Your task to perform on an android device: Do I have any events today? Image 0: 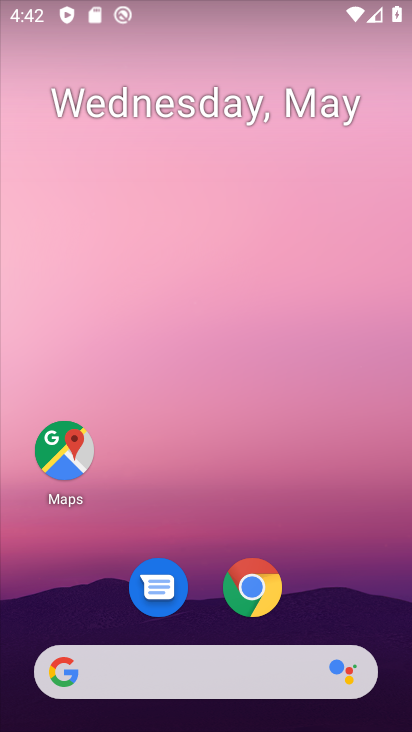
Step 0: drag from (280, 691) to (50, 50)
Your task to perform on an android device: Do I have any events today? Image 1: 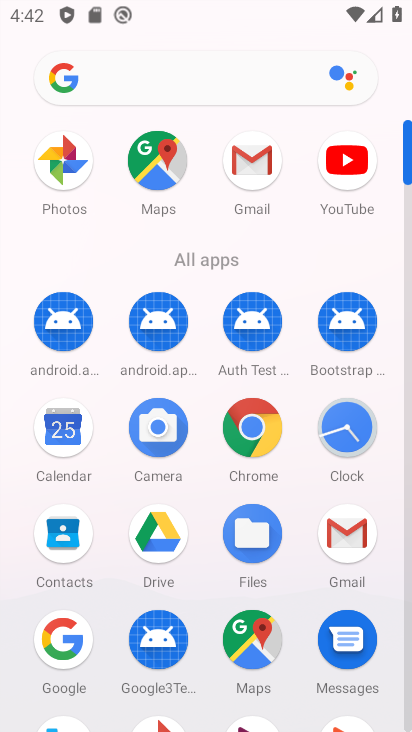
Step 1: click (63, 420)
Your task to perform on an android device: Do I have any events today? Image 2: 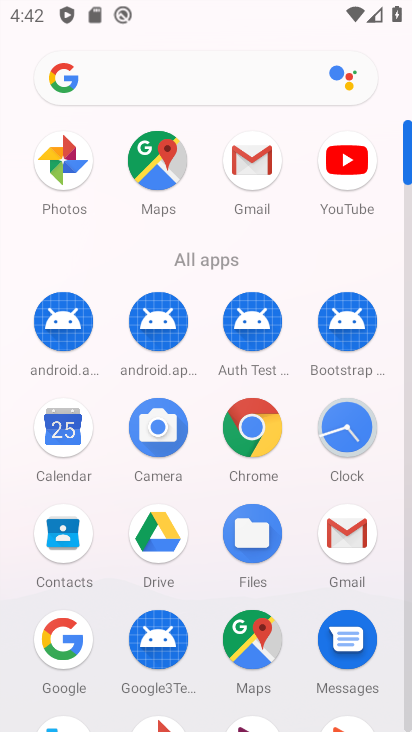
Step 2: click (64, 421)
Your task to perform on an android device: Do I have any events today? Image 3: 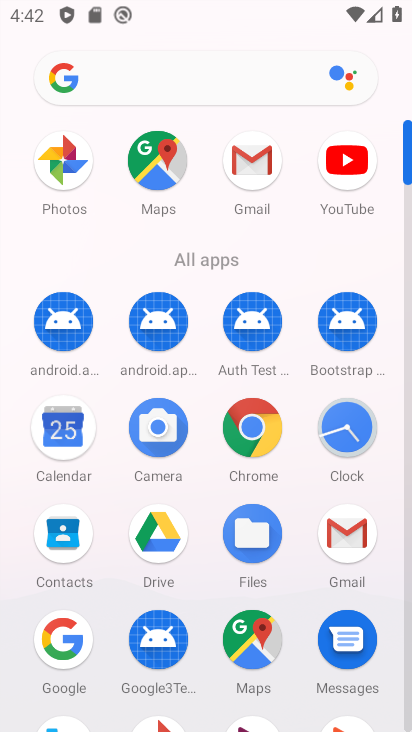
Step 3: click (64, 422)
Your task to perform on an android device: Do I have any events today? Image 4: 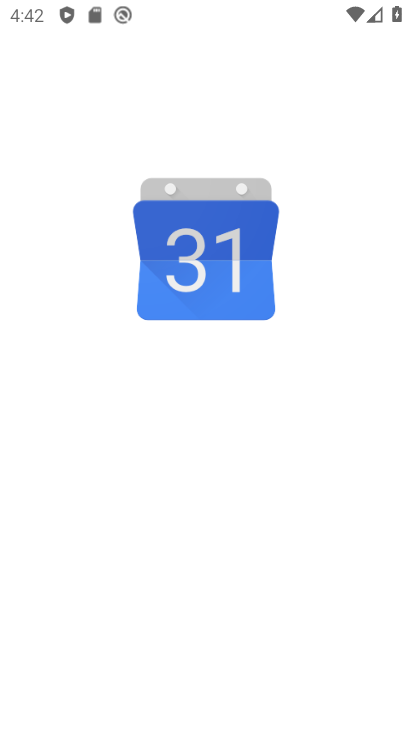
Step 4: click (64, 422)
Your task to perform on an android device: Do I have any events today? Image 5: 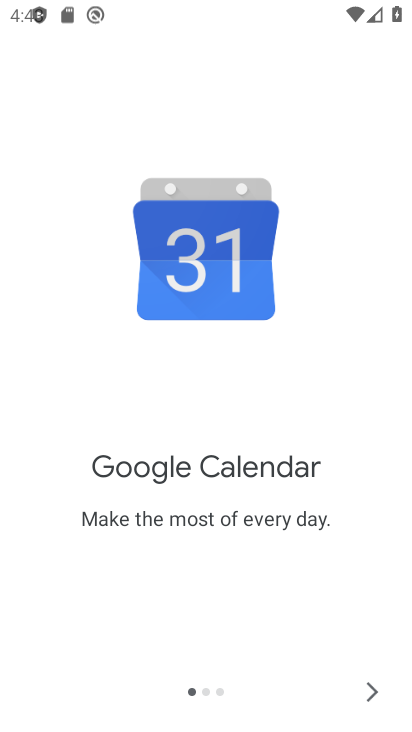
Step 5: click (377, 684)
Your task to perform on an android device: Do I have any events today? Image 6: 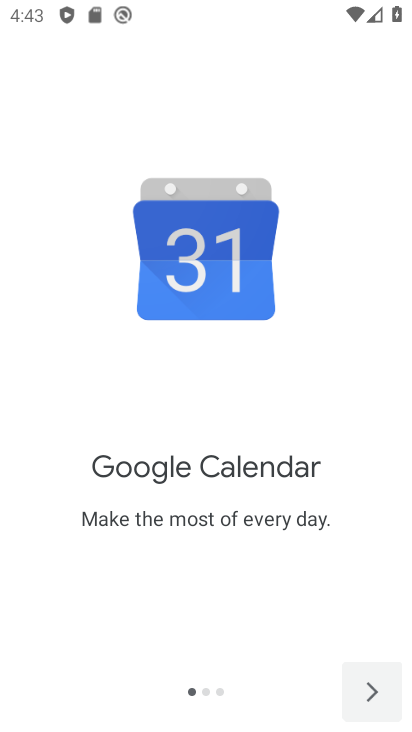
Step 6: click (377, 684)
Your task to perform on an android device: Do I have any events today? Image 7: 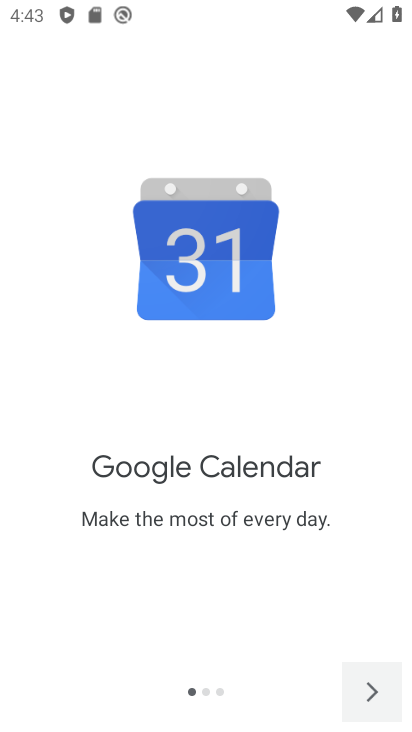
Step 7: click (377, 684)
Your task to perform on an android device: Do I have any events today? Image 8: 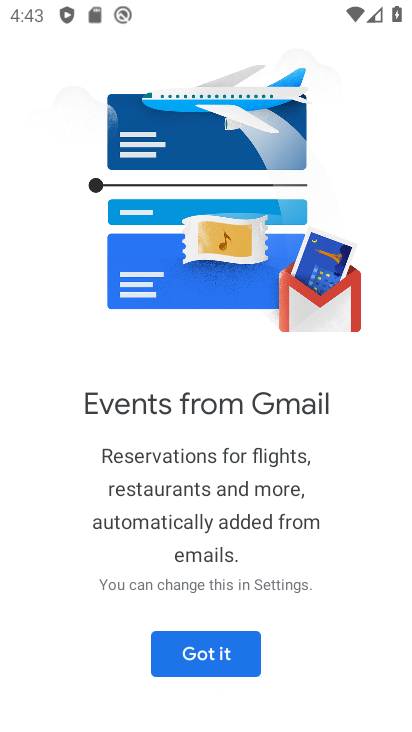
Step 8: click (376, 684)
Your task to perform on an android device: Do I have any events today? Image 9: 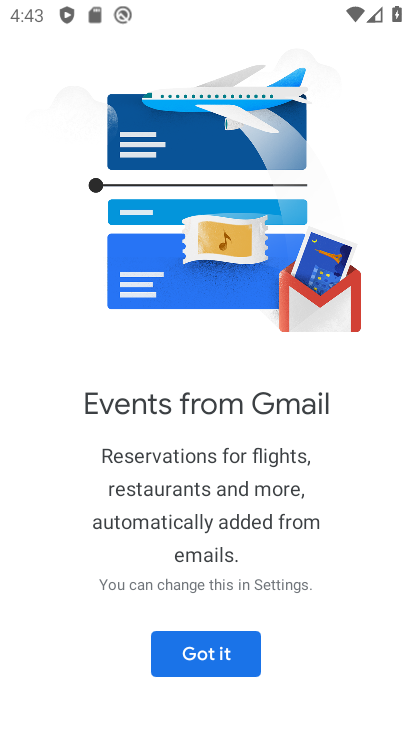
Step 9: click (376, 684)
Your task to perform on an android device: Do I have any events today? Image 10: 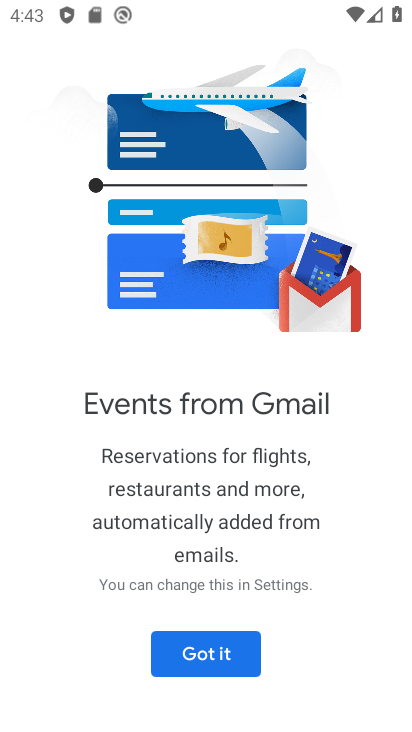
Step 10: click (376, 684)
Your task to perform on an android device: Do I have any events today? Image 11: 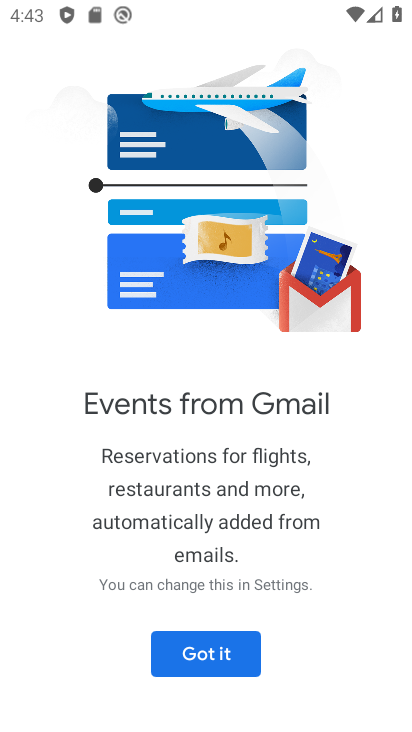
Step 11: click (376, 684)
Your task to perform on an android device: Do I have any events today? Image 12: 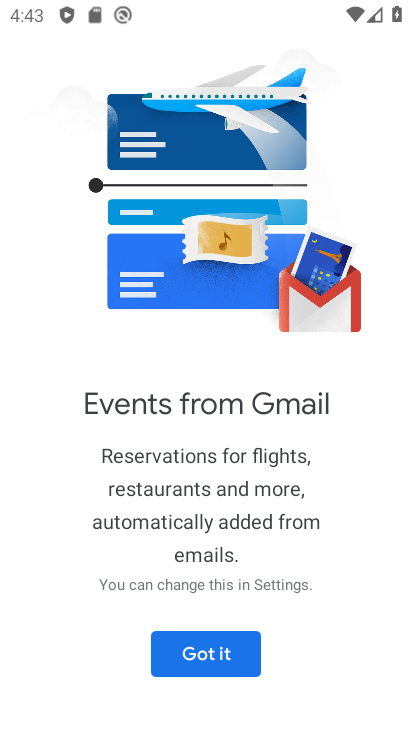
Step 12: click (206, 645)
Your task to perform on an android device: Do I have any events today? Image 13: 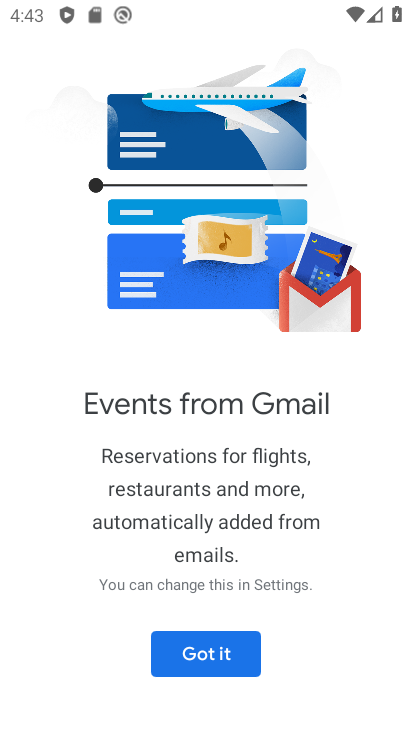
Step 13: click (206, 645)
Your task to perform on an android device: Do I have any events today? Image 14: 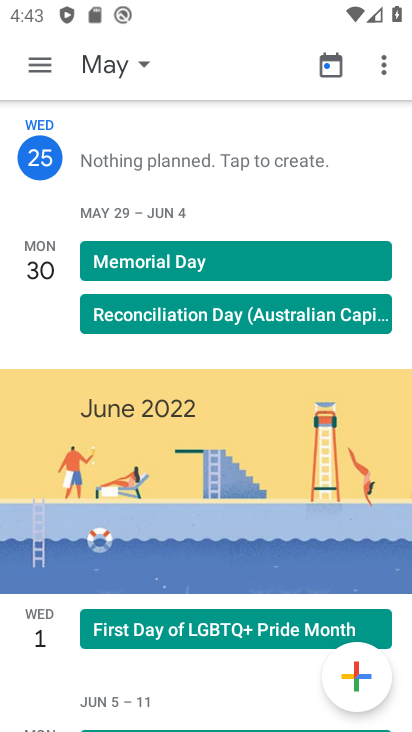
Step 14: click (56, 157)
Your task to perform on an android device: Do I have any events today? Image 15: 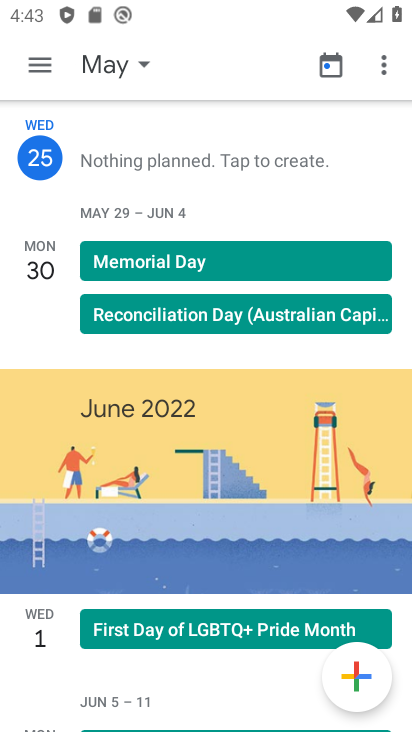
Step 15: click (56, 155)
Your task to perform on an android device: Do I have any events today? Image 16: 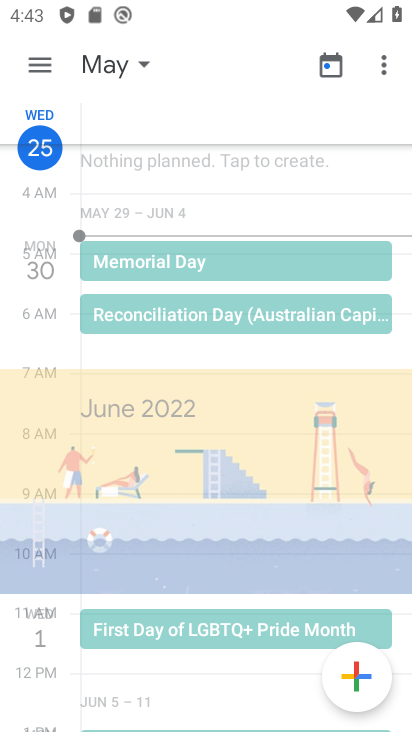
Step 16: click (55, 153)
Your task to perform on an android device: Do I have any events today? Image 17: 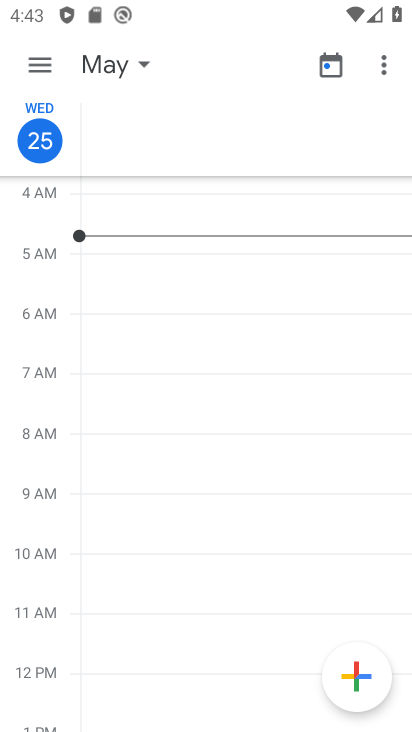
Step 17: click (39, 124)
Your task to perform on an android device: Do I have any events today? Image 18: 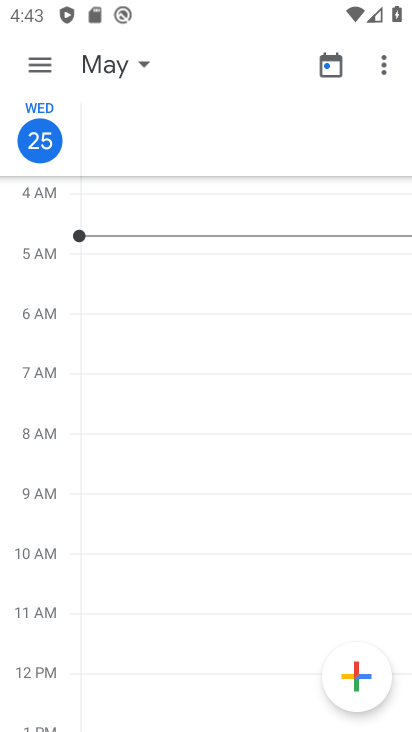
Step 18: click (38, 125)
Your task to perform on an android device: Do I have any events today? Image 19: 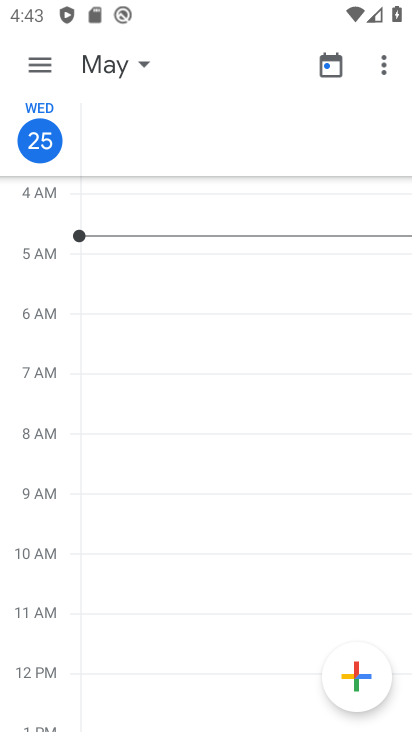
Step 19: task complete